Your task to perform on an android device: Open Chrome and go to settings Image 0: 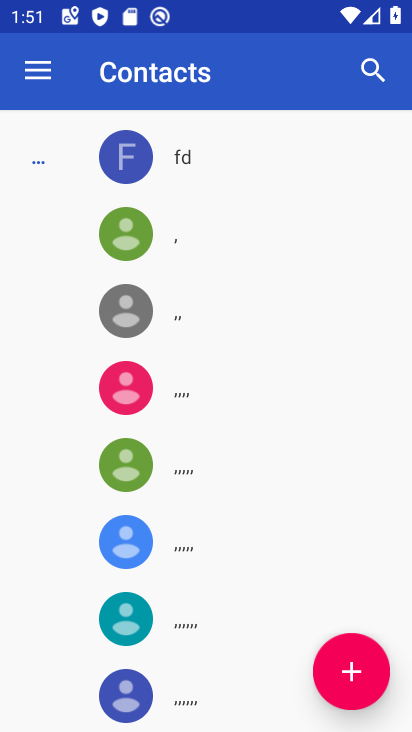
Step 0: press home button
Your task to perform on an android device: Open Chrome and go to settings Image 1: 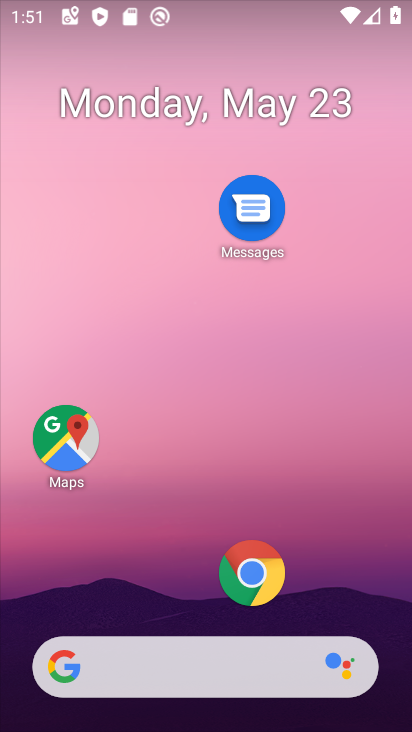
Step 1: drag from (157, 545) to (213, 56)
Your task to perform on an android device: Open Chrome and go to settings Image 2: 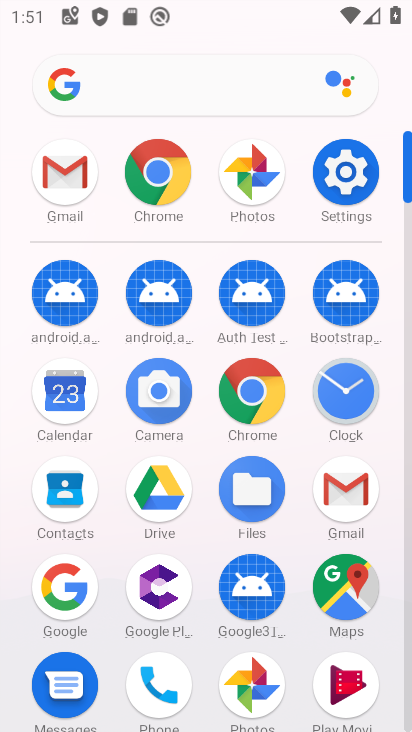
Step 2: click (179, 167)
Your task to perform on an android device: Open Chrome and go to settings Image 3: 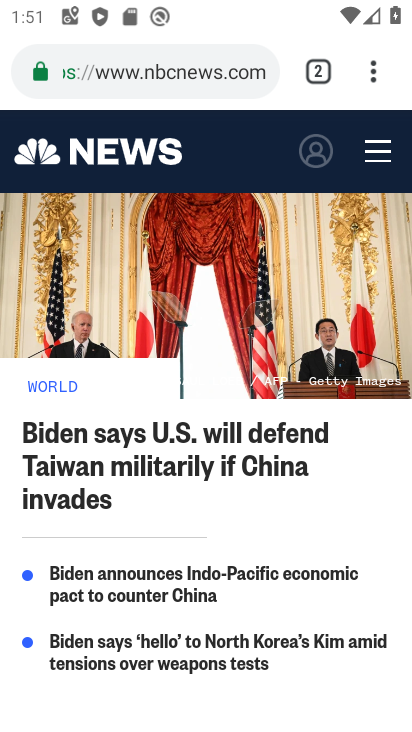
Step 3: click (372, 76)
Your task to perform on an android device: Open Chrome and go to settings Image 4: 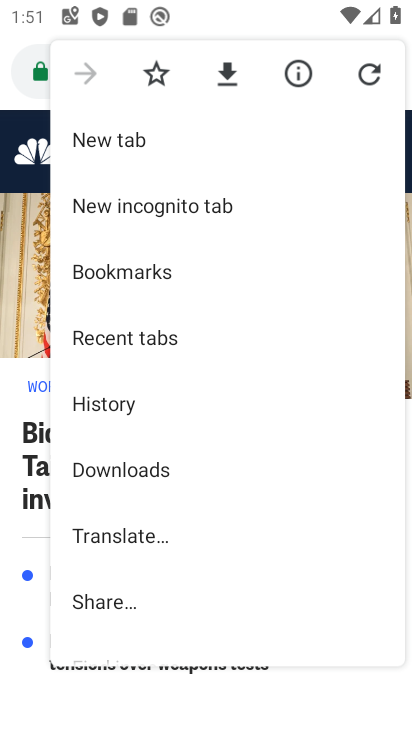
Step 4: drag from (241, 485) to (239, 157)
Your task to perform on an android device: Open Chrome and go to settings Image 5: 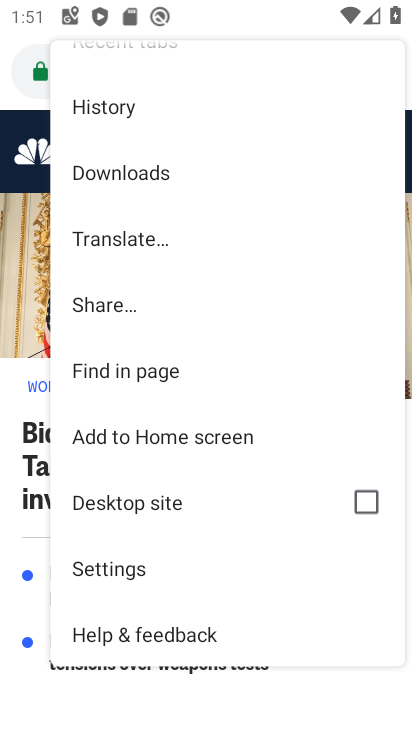
Step 5: click (114, 569)
Your task to perform on an android device: Open Chrome and go to settings Image 6: 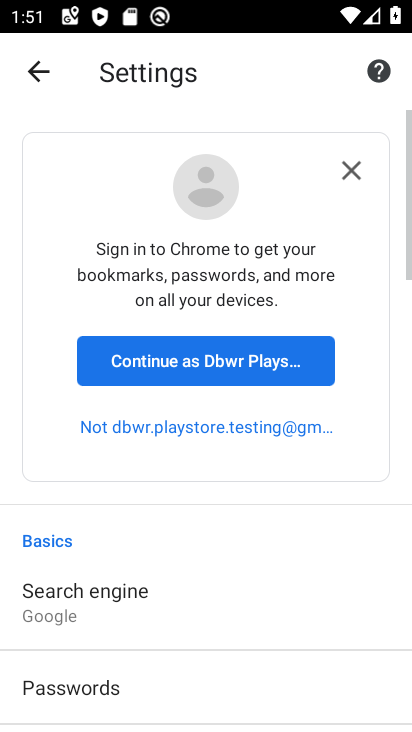
Step 6: task complete